Your task to perform on an android device: toggle data saver in the chrome app Image 0: 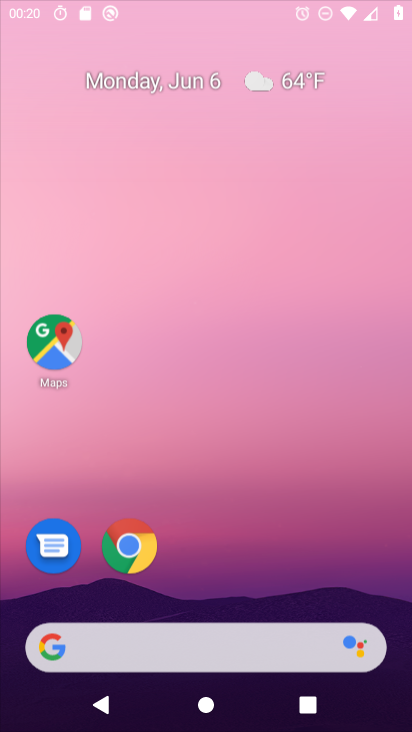
Step 0: click (273, 192)
Your task to perform on an android device: toggle data saver in the chrome app Image 1: 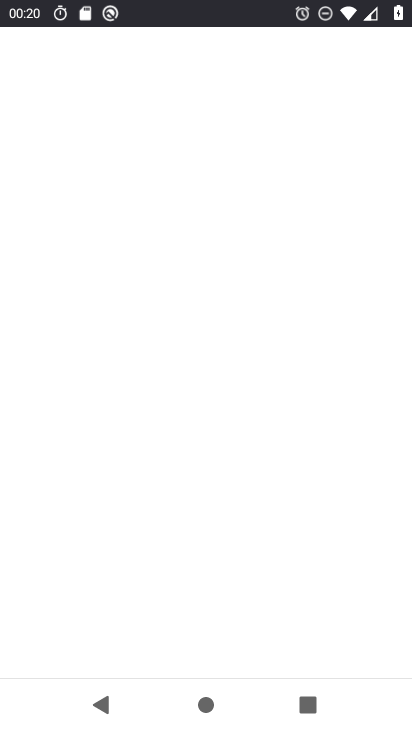
Step 1: drag from (194, 379) to (221, 148)
Your task to perform on an android device: toggle data saver in the chrome app Image 2: 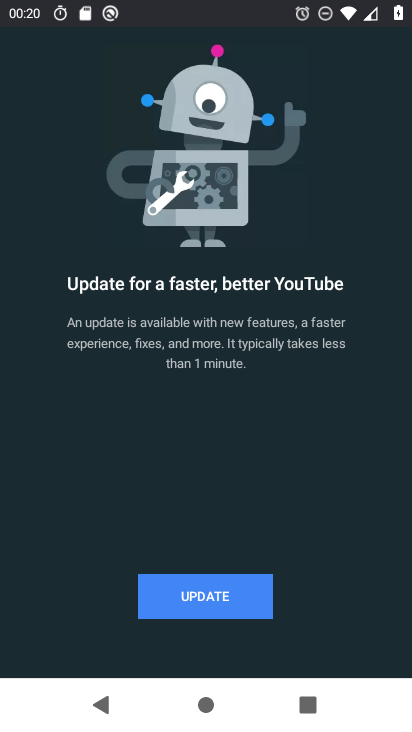
Step 2: press home button
Your task to perform on an android device: toggle data saver in the chrome app Image 3: 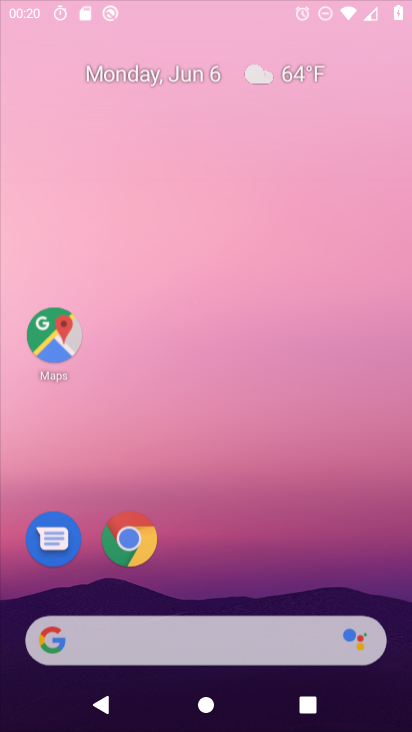
Step 3: drag from (229, 631) to (256, 144)
Your task to perform on an android device: toggle data saver in the chrome app Image 4: 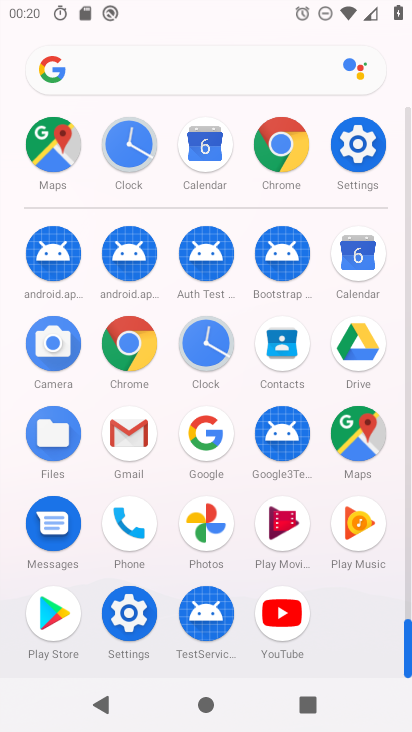
Step 4: click (139, 336)
Your task to perform on an android device: toggle data saver in the chrome app Image 5: 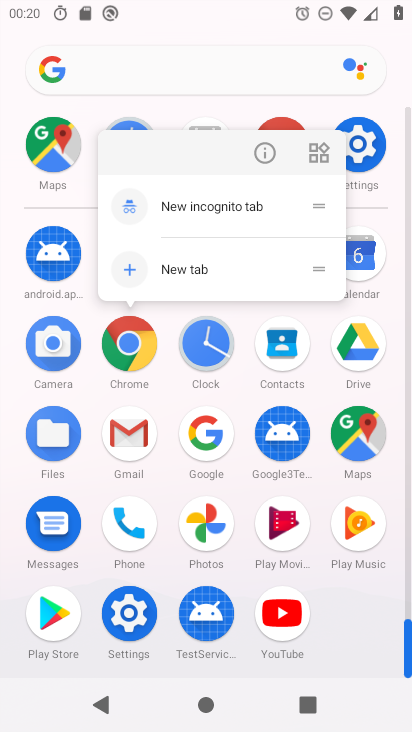
Step 5: click (267, 144)
Your task to perform on an android device: toggle data saver in the chrome app Image 6: 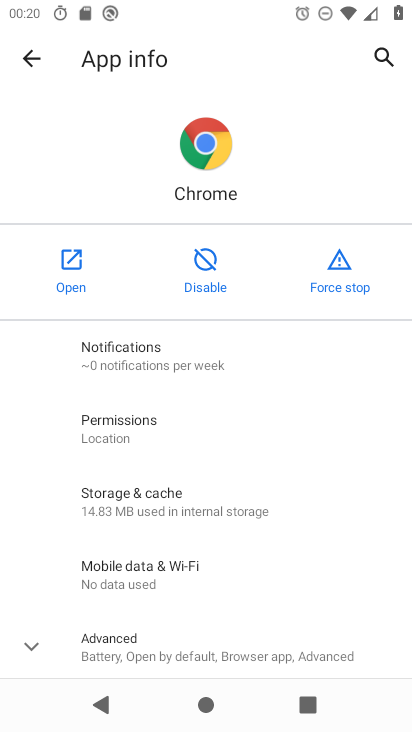
Step 6: click (70, 253)
Your task to perform on an android device: toggle data saver in the chrome app Image 7: 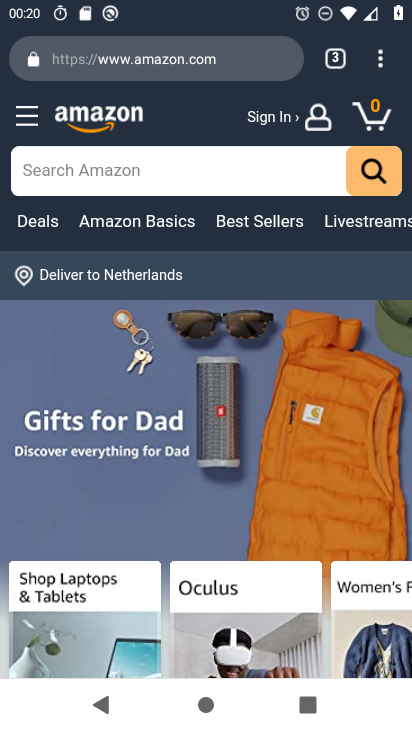
Step 7: drag from (382, 54) to (224, 574)
Your task to perform on an android device: toggle data saver in the chrome app Image 8: 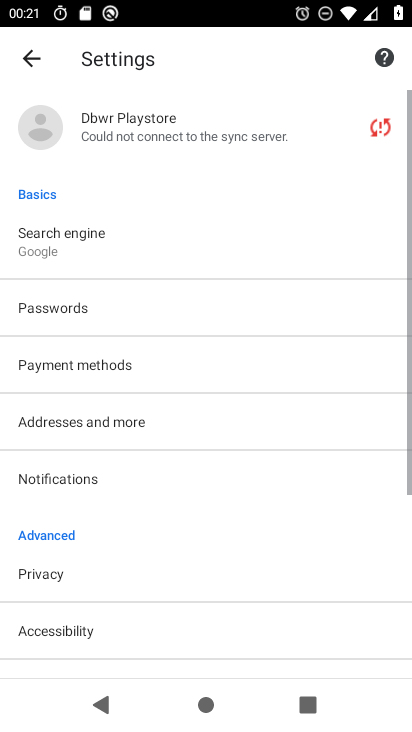
Step 8: drag from (220, 563) to (238, 124)
Your task to perform on an android device: toggle data saver in the chrome app Image 9: 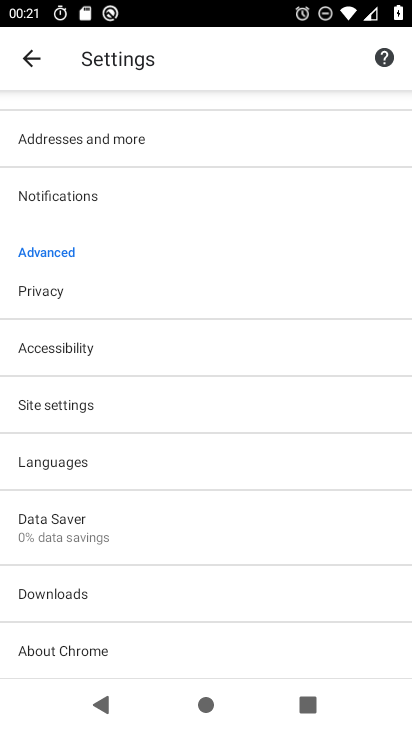
Step 9: click (101, 532)
Your task to perform on an android device: toggle data saver in the chrome app Image 10: 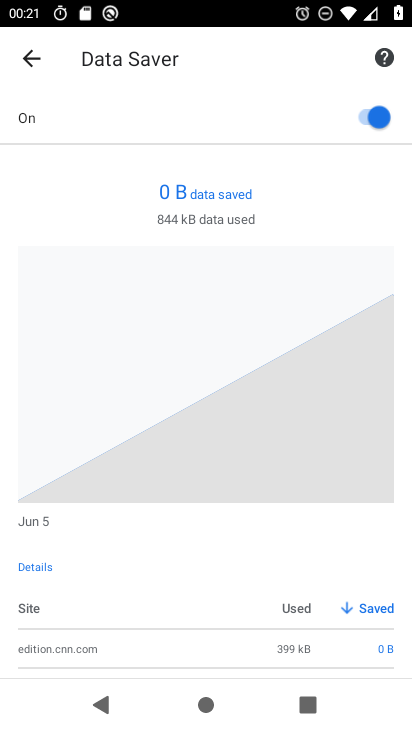
Step 10: drag from (258, 563) to (272, 283)
Your task to perform on an android device: toggle data saver in the chrome app Image 11: 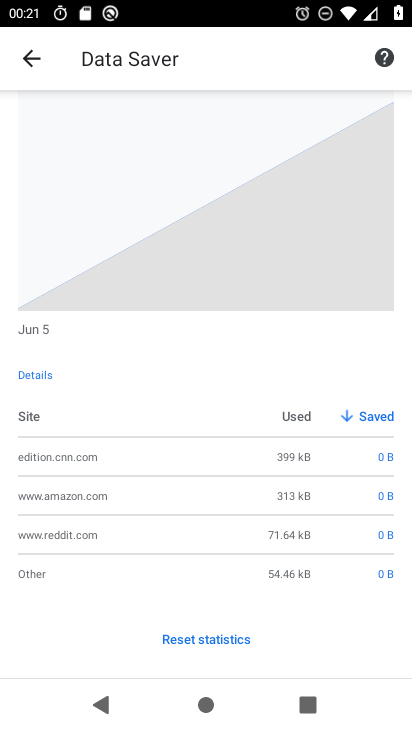
Step 11: drag from (239, 503) to (267, 227)
Your task to perform on an android device: toggle data saver in the chrome app Image 12: 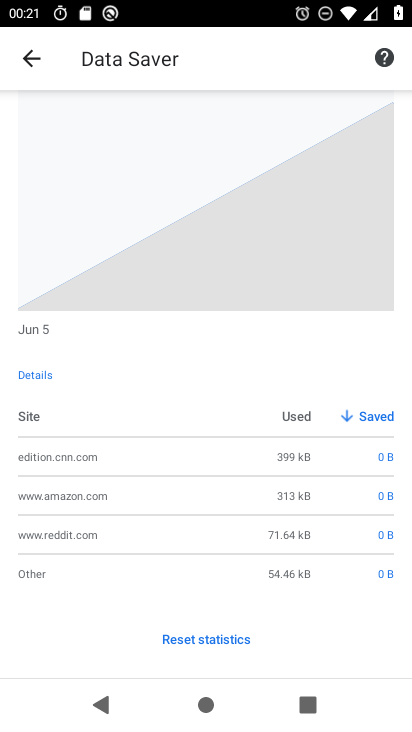
Step 12: drag from (265, 140) to (258, 544)
Your task to perform on an android device: toggle data saver in the chrome app Image 13: 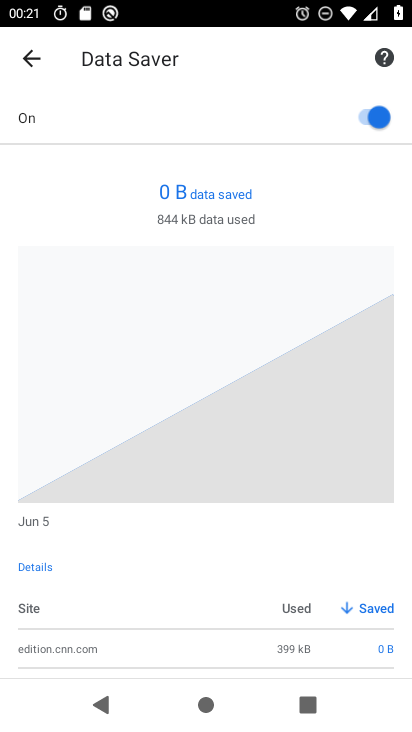
Step 13: click (381, 111)
Your task to perform on an android device: toggle data saver in the chrome app Image 14: 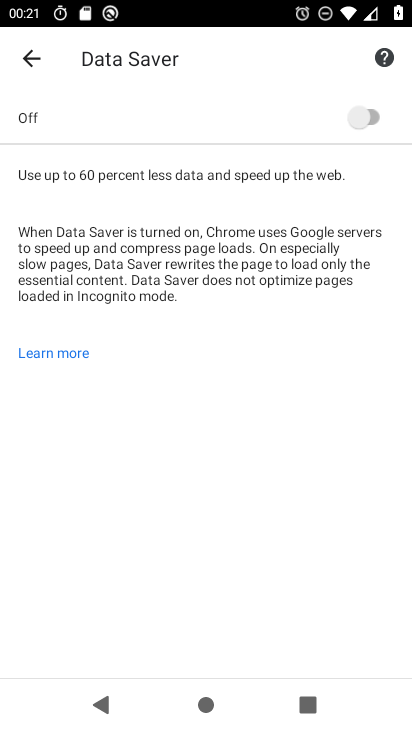
Step 14: task complete